Your task to perform on an android device: read, delete, or share a saved page in the chrome app Image 0: 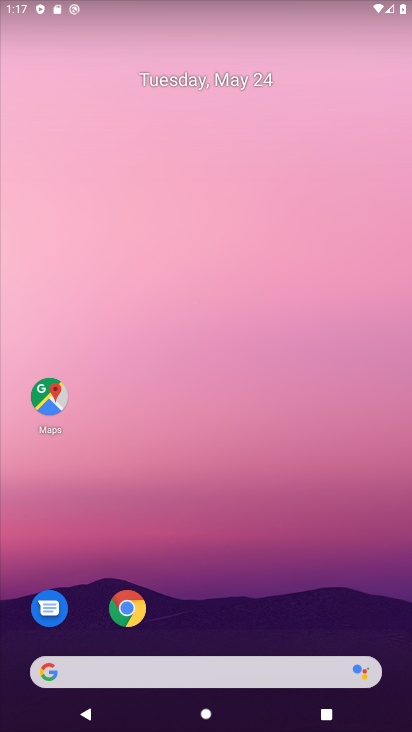
Step 0: click (127, 607)
Your task to perform on an android device: read, delete, or share a saved page in the chrome app Image 1: 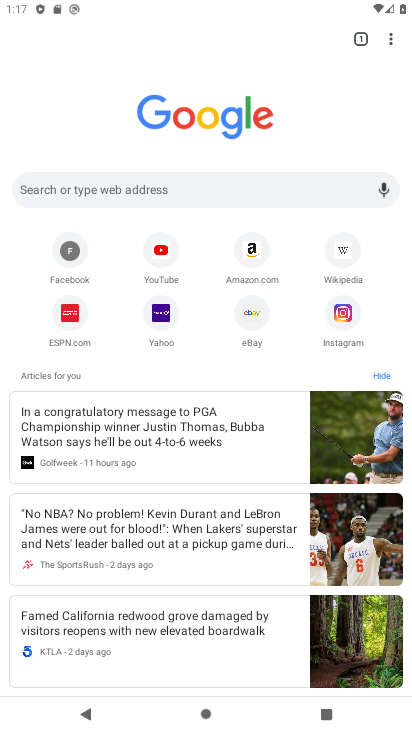
Step 1: click (391, 43)
Your task to perform on an android device: read, delete, or share a saved page in the chrome app Image 2: 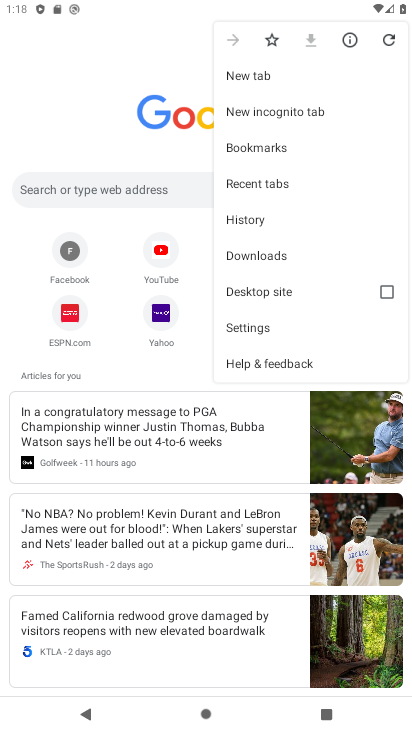
Step 2: click (295, 251)
Your task to perform on an android device: read, delete, or share a saved page in the chrome app Image 3: 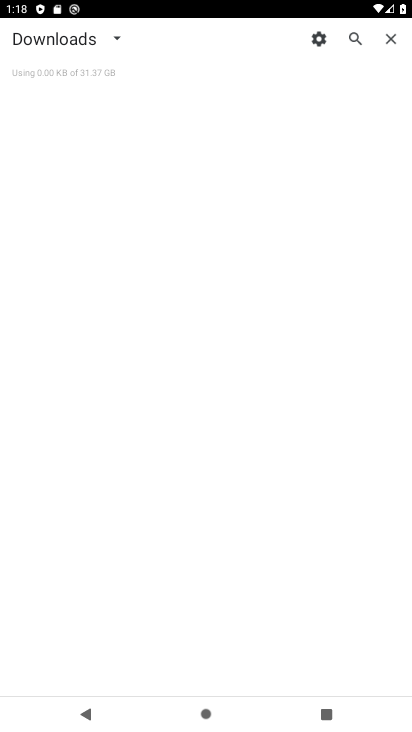
Step 3: click (108, 50)
Your task to perform on an android device: read, delete, or share a saved page in the chrome app Image 4: 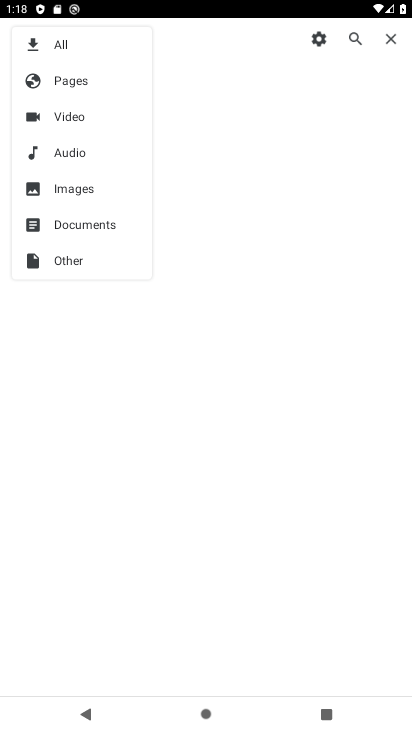
Step 4: click (99, 77)
Your task to perform on an android device: read, delete, or share a saved page in the chrome app Image 5: 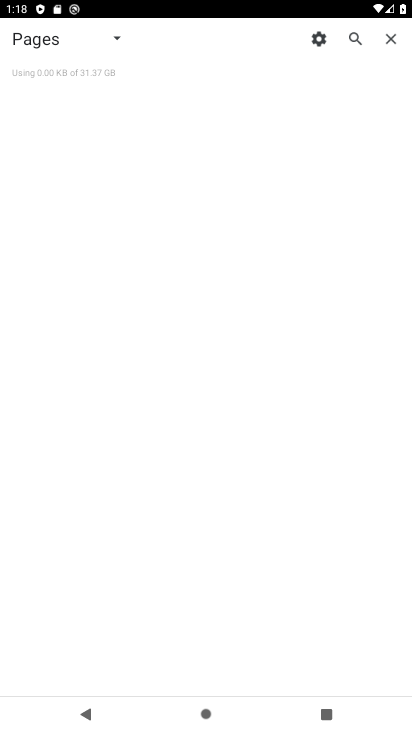
Step 5: task complete